Your task to perform on an android device: open wifi settings Image 0: 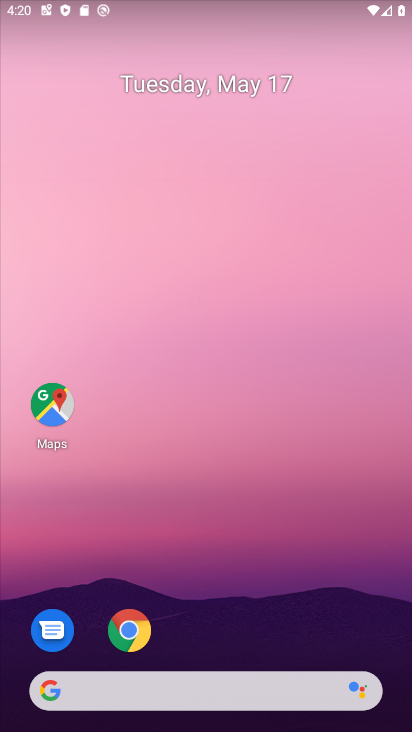
Step 0: drag from (212, 729) to (225, 244)
Your task to perform on an android device: open wifi settings Image 1: 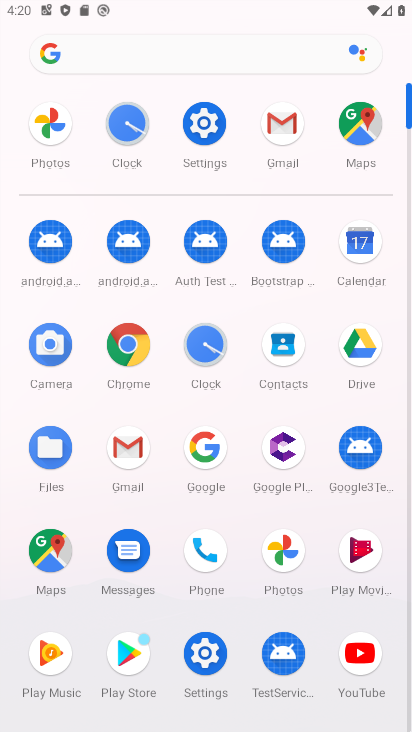
Step 1: click (208, 122)
Your task to perform on an android device: open wifi settings Image 2: 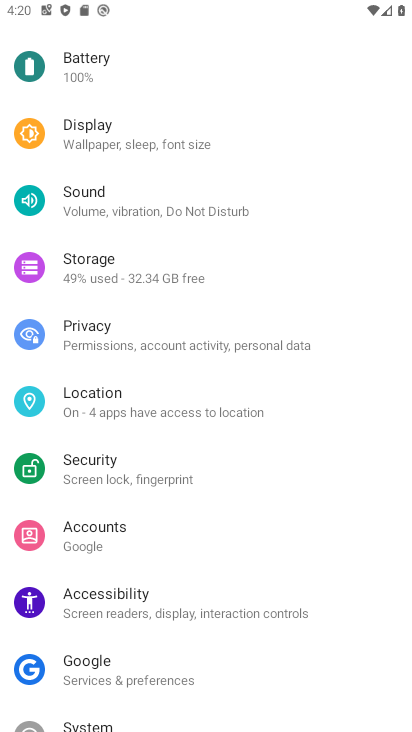
Step 2: drag from (203, 97) to (191, 453)
Your task to perform on an android device: open wifi settings Image 3: 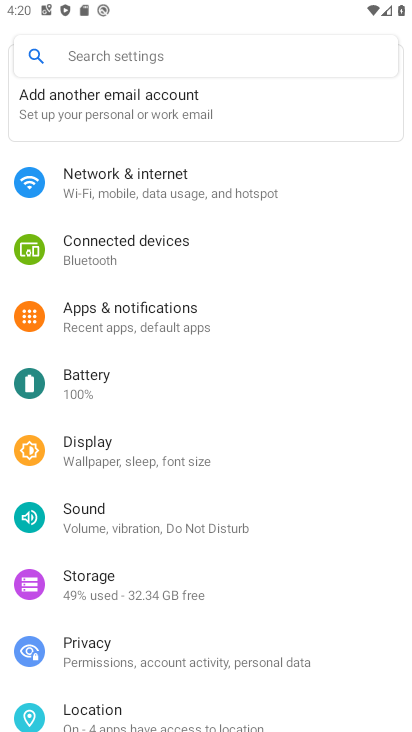
Step 3: click (167, 180)
Your task to perform on an android device: open wifi settings Image 4: 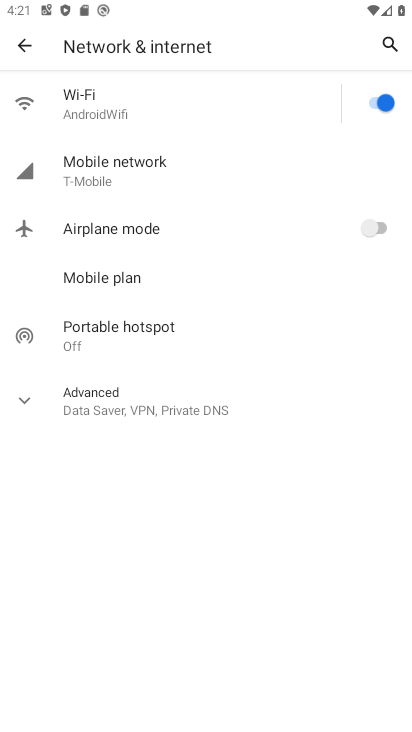
Step 4: click (101, 109)
Your task to perform on an android device: open wifi settings Image 5: 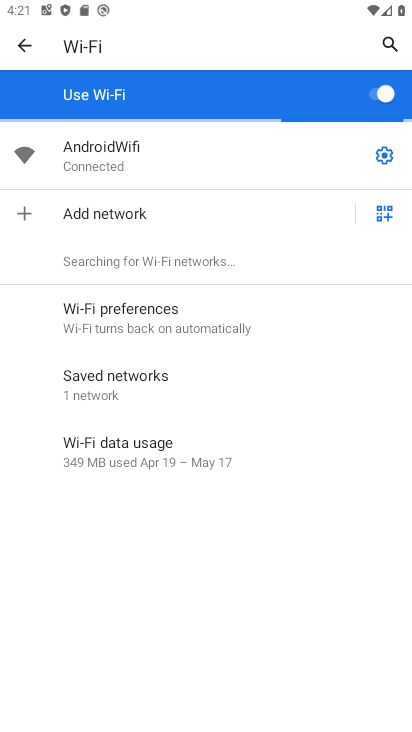
Step 5: task complete